Your task to perform on an android device: Open Google Chrome Image 0: 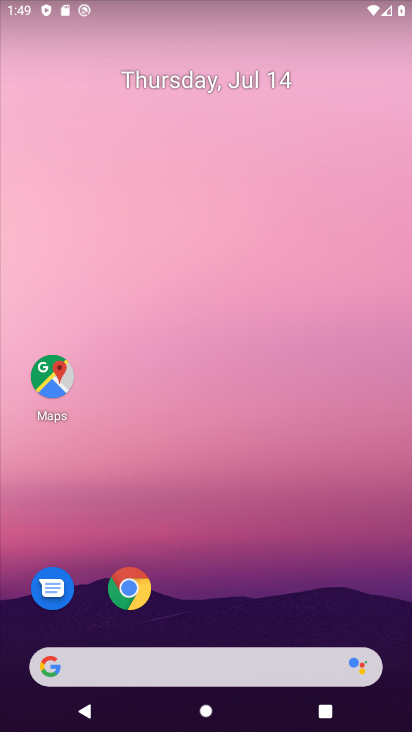
Step 0: click (129, 593)
Your task to perform on an android device: Open Google Chrome Image 1: 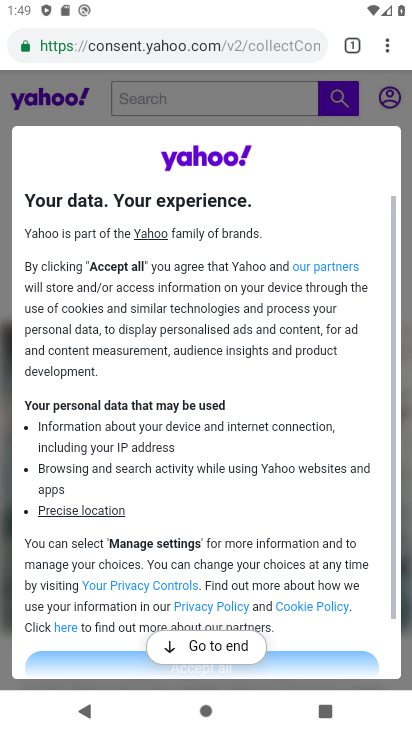
Step 1: task complete